Your task to perform on an android device: clear history in the chrome app Image 0: 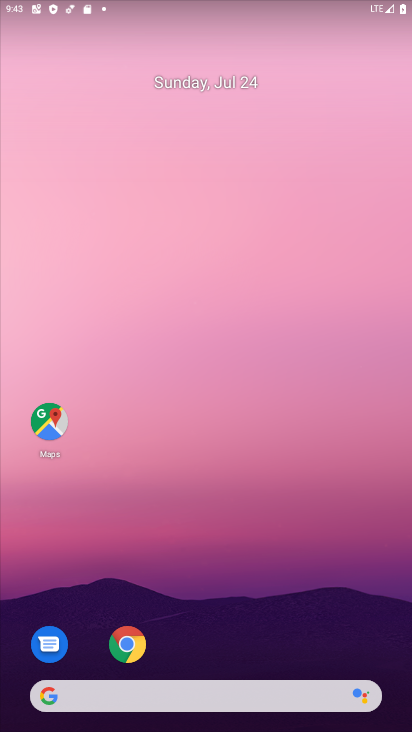
Step 0: drag from (235, 687) to (273, 145)
Your task to perform on an android device: clear history in the chrome app Image 1: 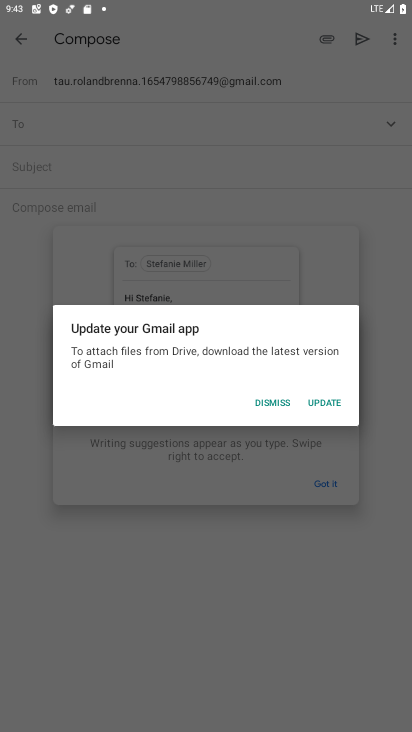
Step 1: press home button
Your task to perform on an android device: clear history in the chrome app Image 2: 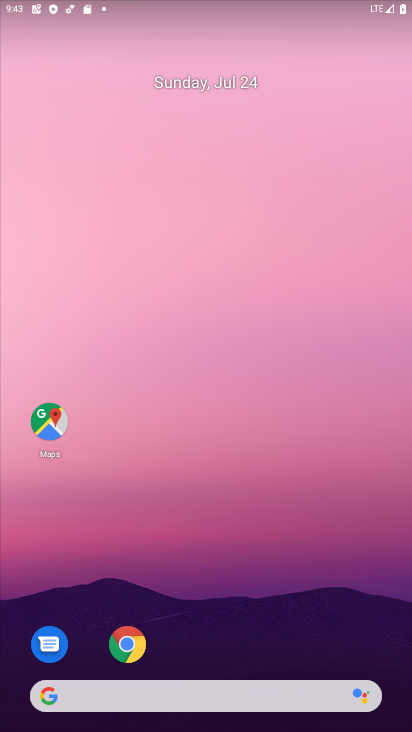
Step 2: click (138, 647)
Your task to perform on an android device: clear history in the chrome app Image 3: 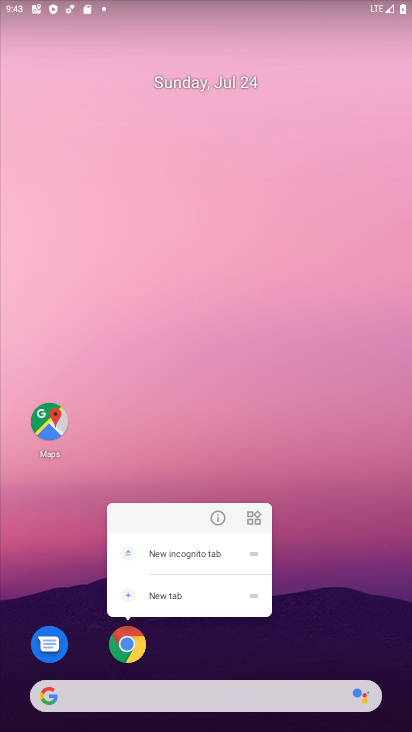
Step 3: click (132, 639)
Your task to perform on an android device: clear history in the chrome app Image 4: 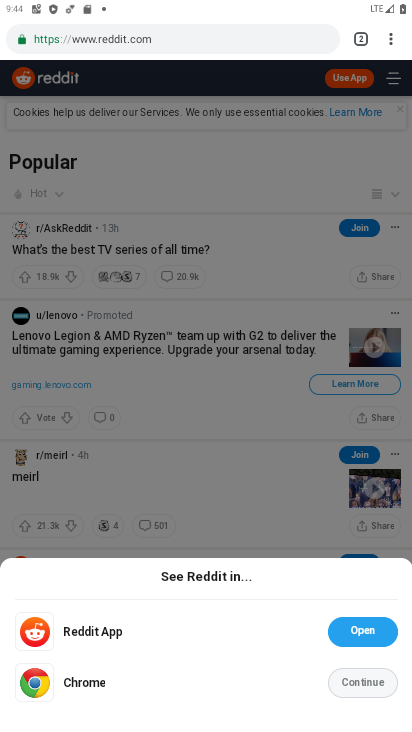
Step 4: click (356, 30)
Your task to perform on an android device: clear history in the chrome app Image 5: 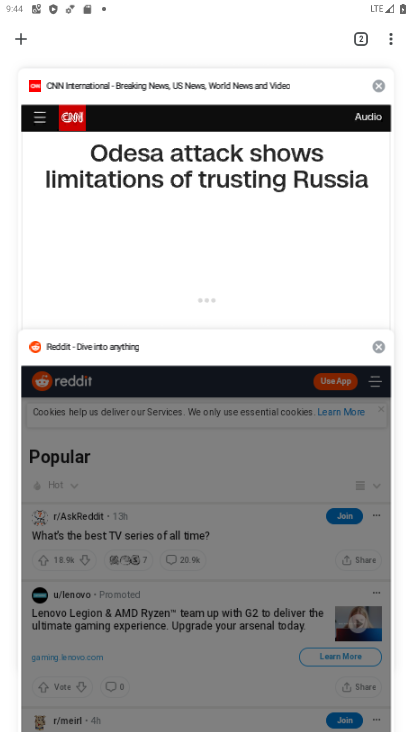
Step 5: click (375, 88)
Your task to perform on an android device: clear history in the chrome app Image 6: 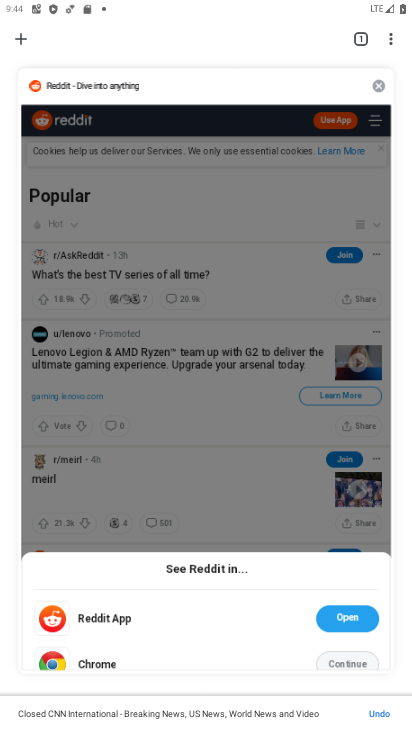
Step 6: click (375, 88)
Your task to perform on an android device: clear history in the chrome app Image 7: 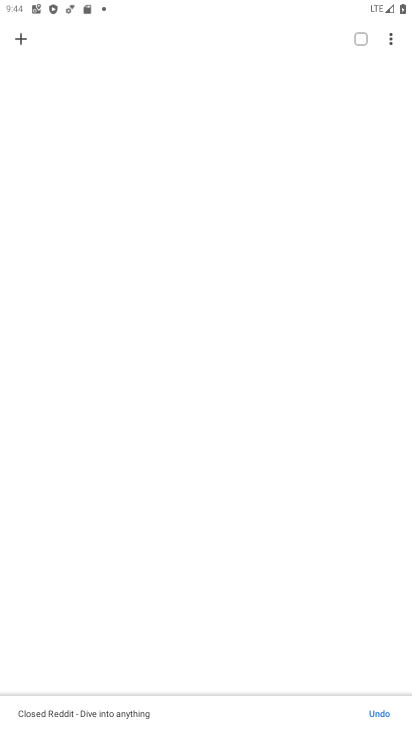
Step 7: click (390, 38)
Your task to perform on an android device: clear history in the chrome app Image 8: 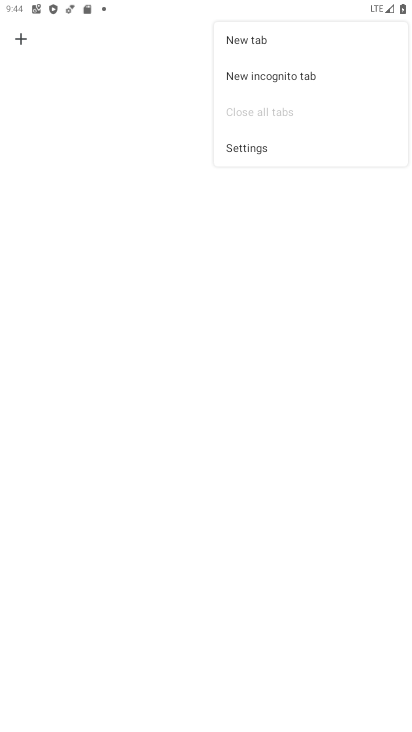
Step 8: click (287, 150)
Your task to perform on an android device: clear history in the chrome app Image 9: 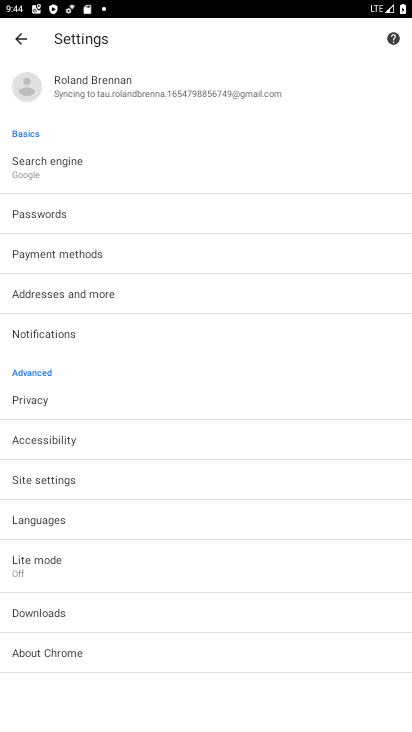
Step 9: click (34, 397)
Your task to perform on an android device: clear history in the chrome app Image 10: 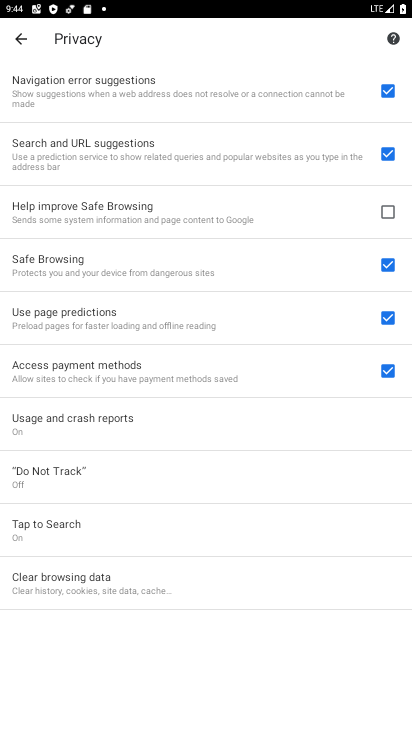
Step 10: click (61, 570)
Your task to perform on an android device: clear history in the chrome app Image 11: 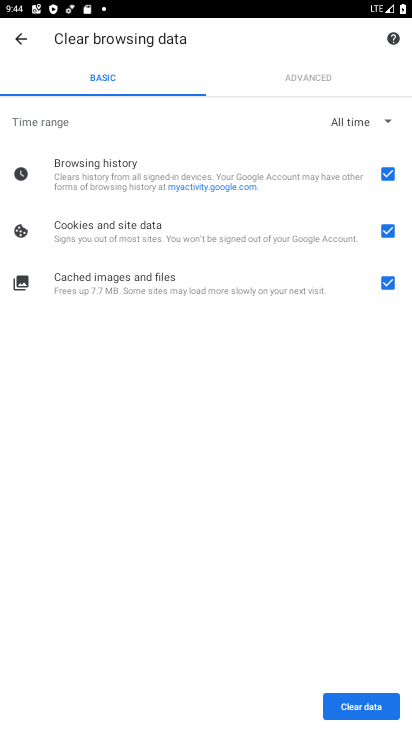
Step 11: click (377, 714)
Your task to perform on an android device: clear history in the chrome app Image 12: 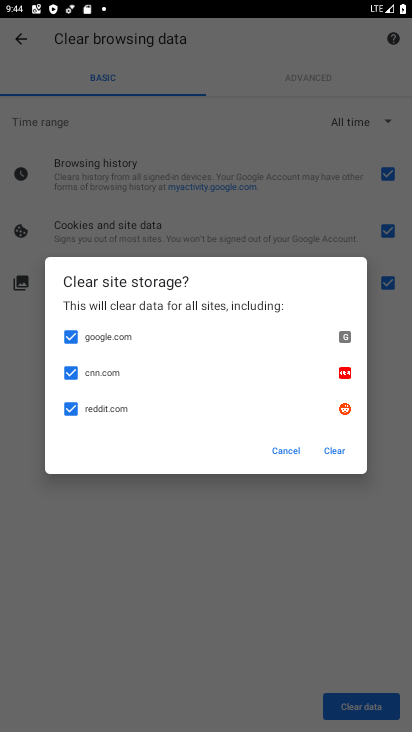
Step 12: click (332, 457)
Your task to perform on an android device: clear history in the chrome app Image 13: 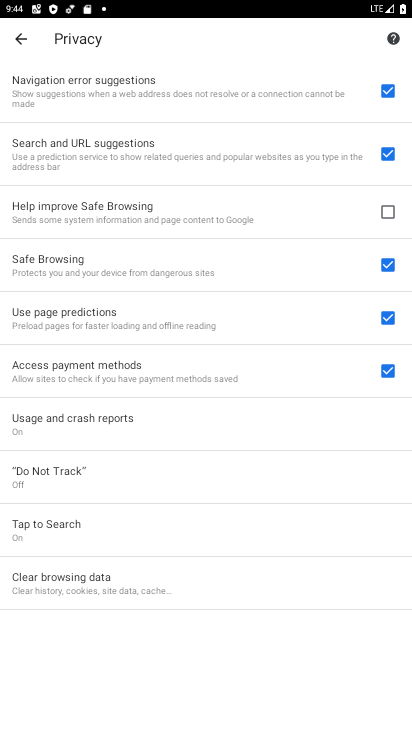
Step 13: task complete